Your task to perform on an android device: Open the stopwatch Image 0: 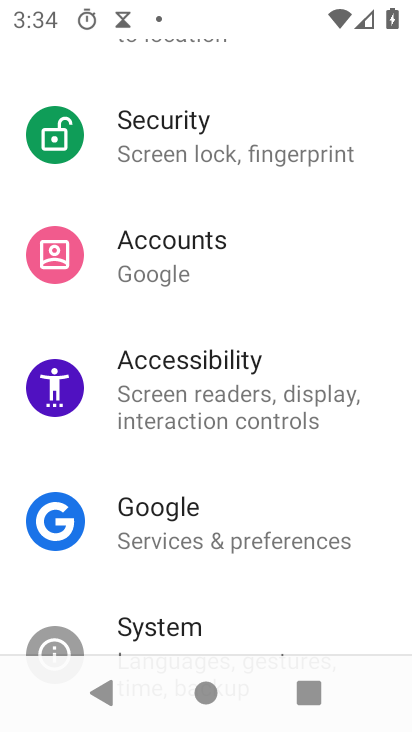
Step 0: press home button
Your task to perform on an android device: Open the stopwatch Image 1: 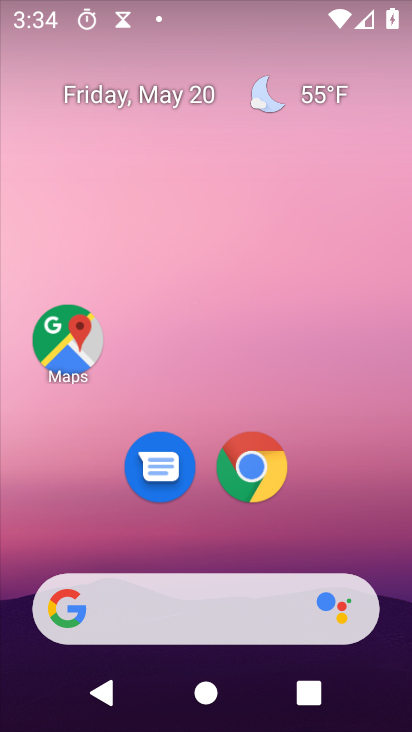
Step 1: drag from (204, 543) to (177, 54)
Your task to perform on an android device: Open the stopwatch Image 2: 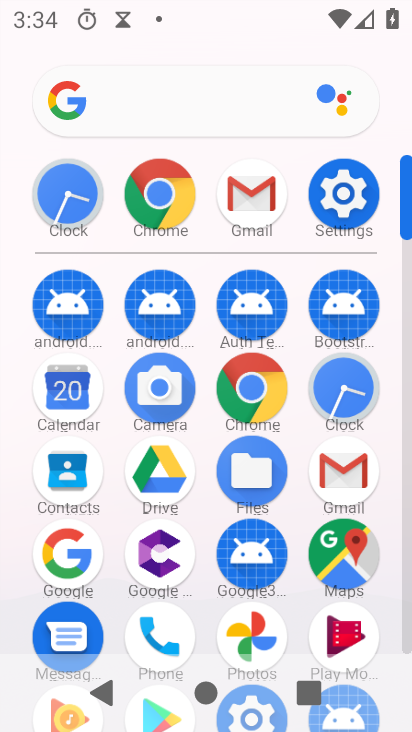
Step 2: click (349, 378)
Your task to perform on an android device: Open the stopwatch Image 3: 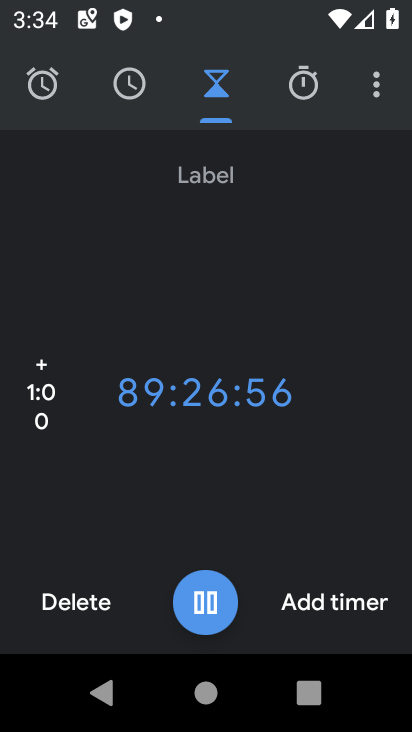
Step 3: click (304, 91)
Your task to perform on an android device: Open the stopwatch Image 4: 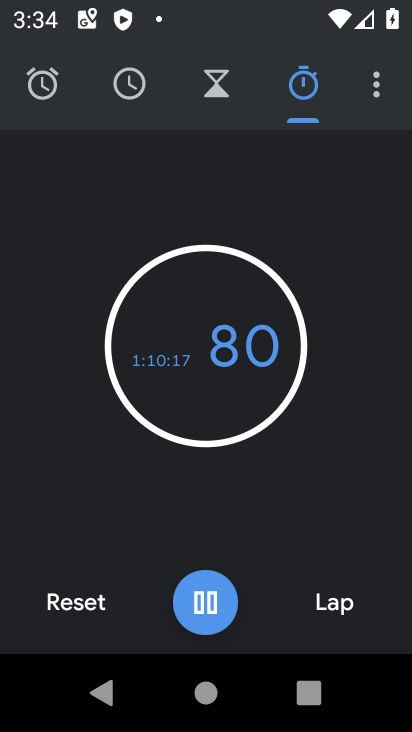
Step 4: click (48, 602)
Your task to perform on an android device: Open the stopwatch Image 5: 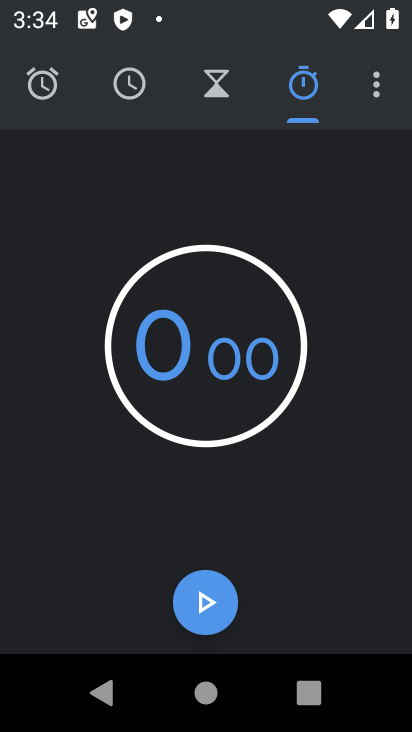
Step 5: click (198, 581)
Your task to perform on an android device: Open the stopwatch Image 6: 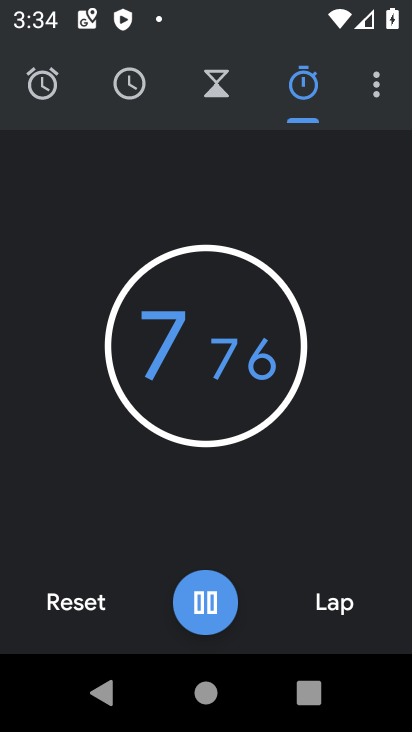
Step 6: task complete